Your task to perform on an android device: turn on translation in the chrome app Image 0: 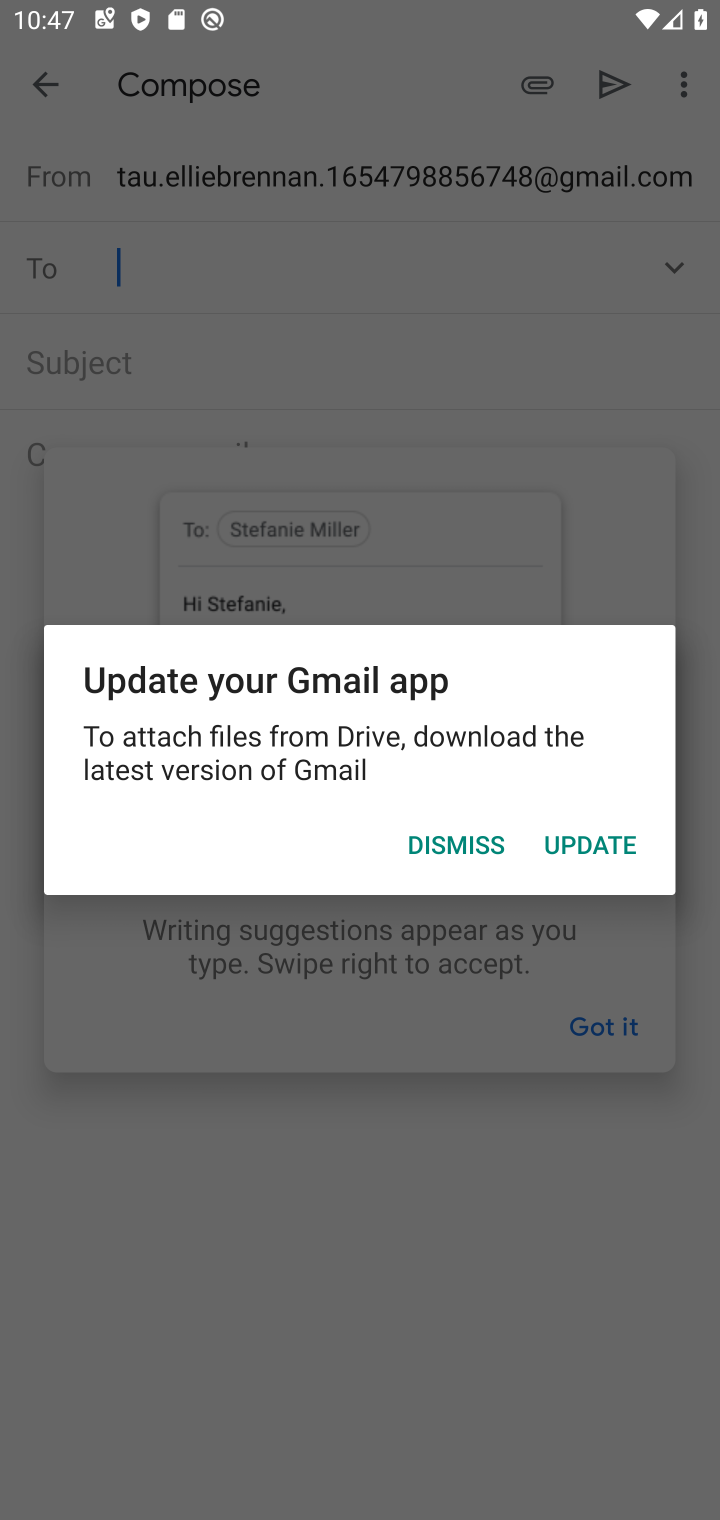
Step 0: click (490, 823)
Your task to perform on an android device: turn on translation in the chrome app Image 1: 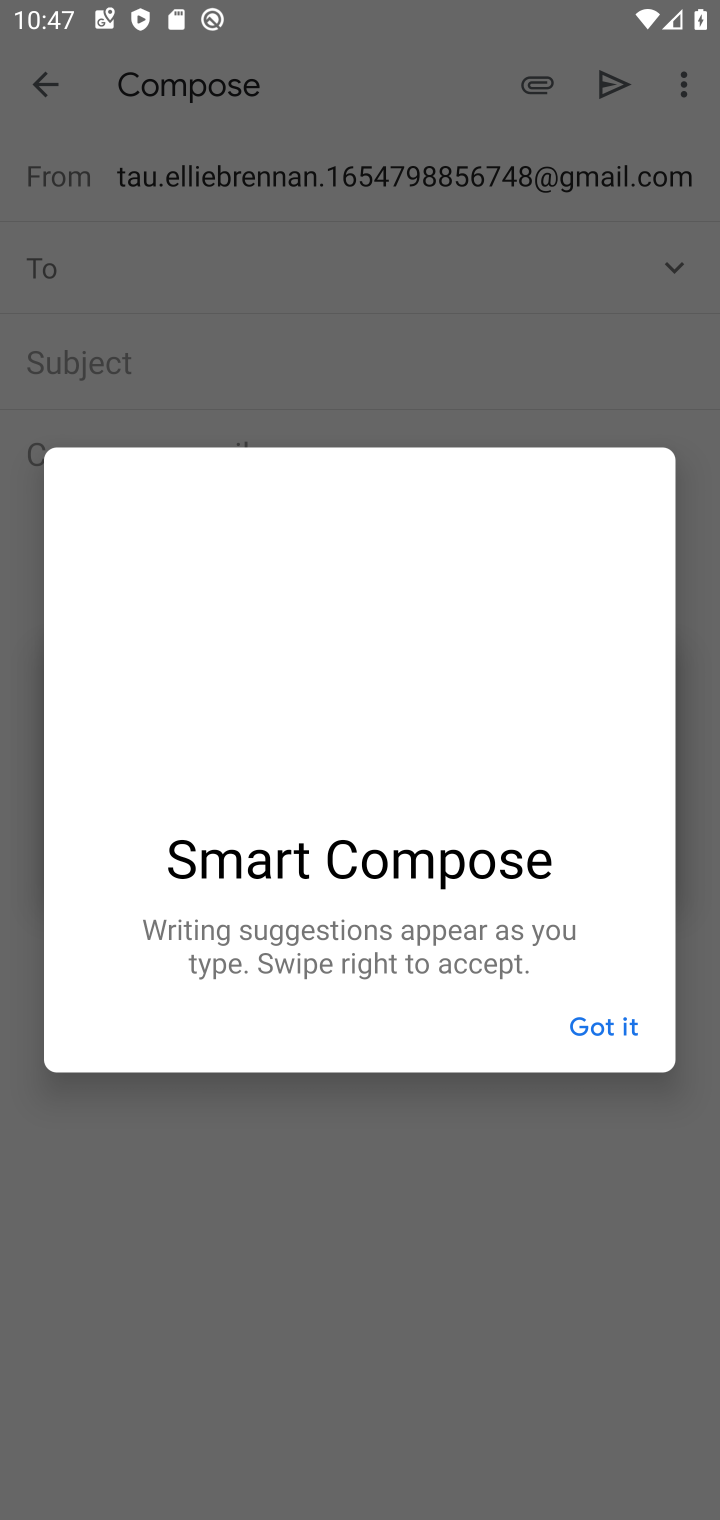
Step 1: click (617, 1036)
Your task to perform on an android device: turn on translation in the chrome app Image 2: 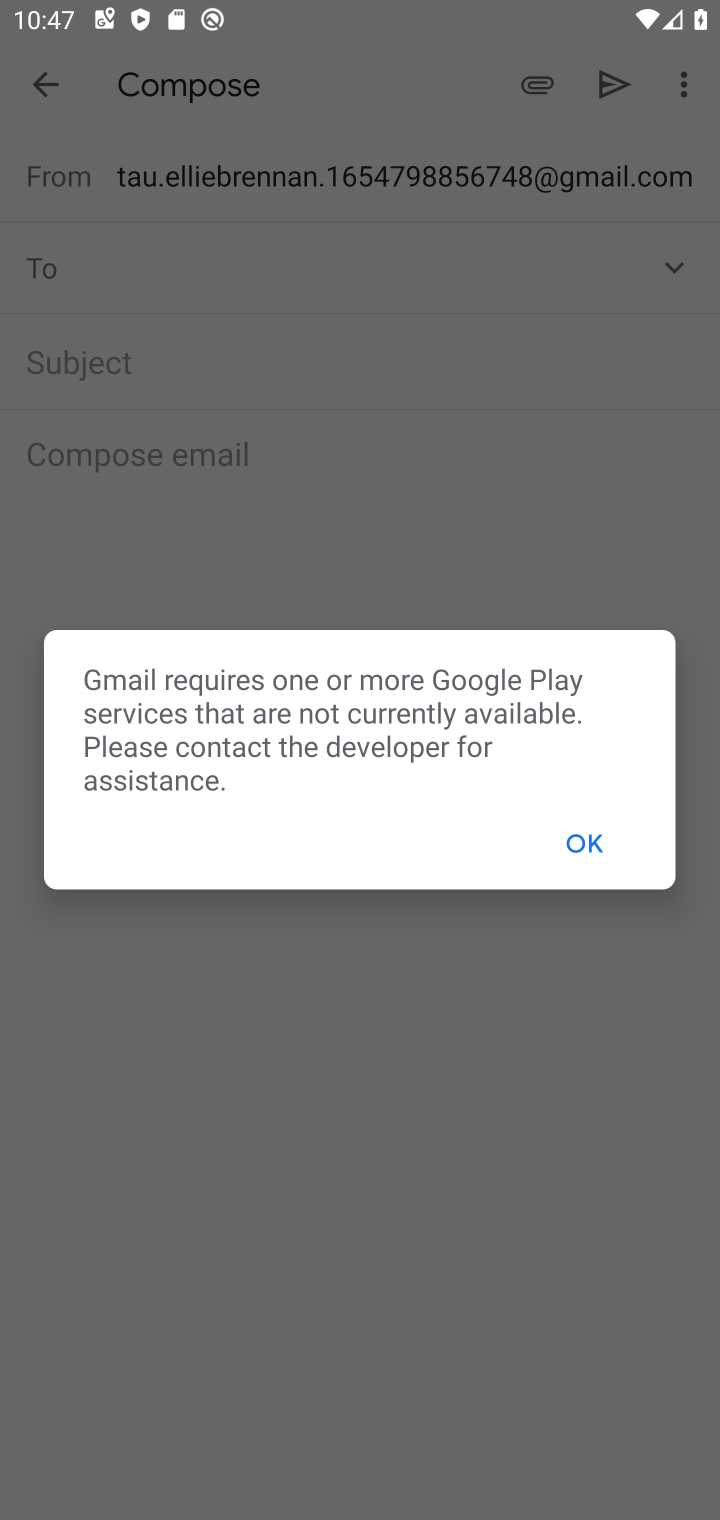
Step 2: click (576, 807)
Your task to perform on an android device: turn on translation in the chrome app Image 3: 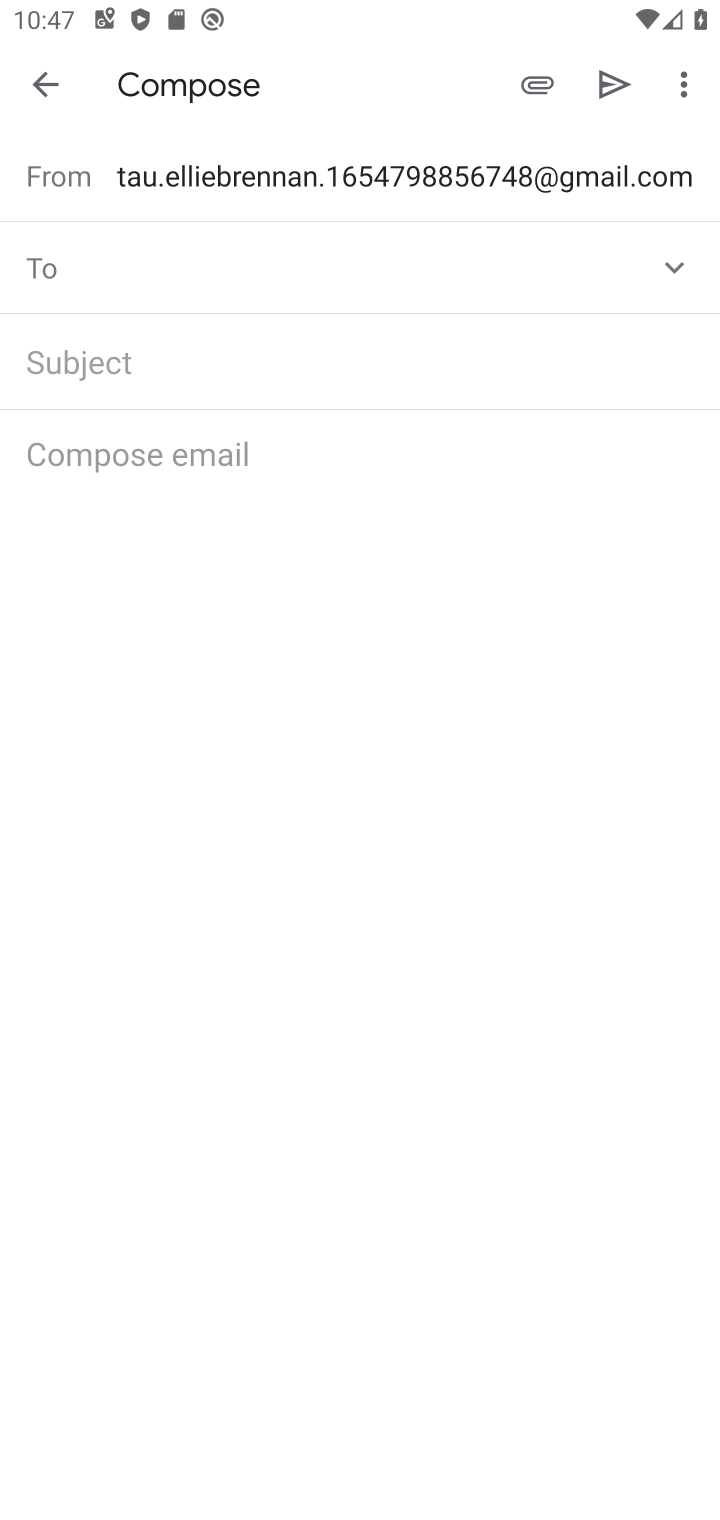
Step 3: press back button
Your task to perform on an android device: turn on translation in the chrome app Image 4: 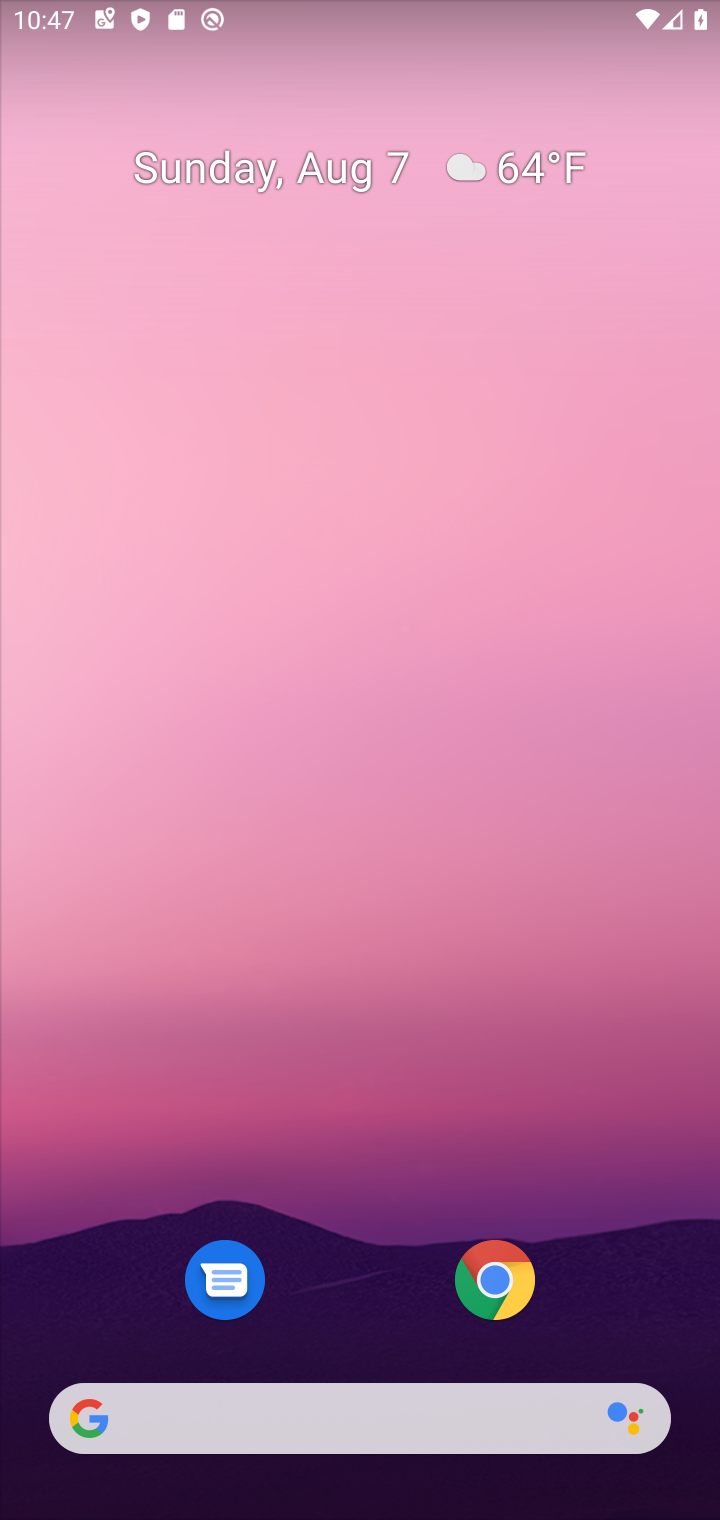
Step 4: click (497, 1266)
Your task to perform on an android device: turn on translation in the chrome app Image 5: 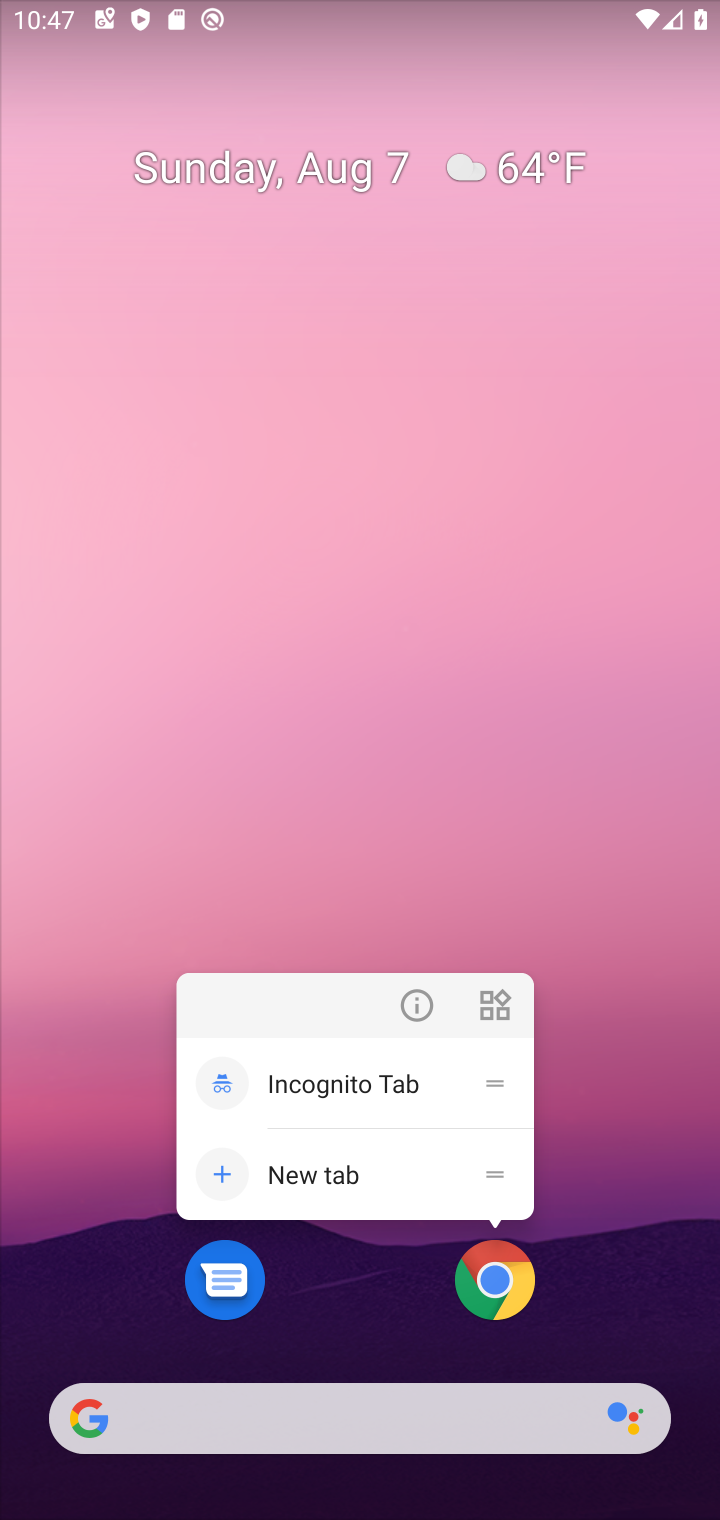
Step 5: click (505, 1262)
Your task to perform on an android device: turn on translation in the chrome app Image 6: 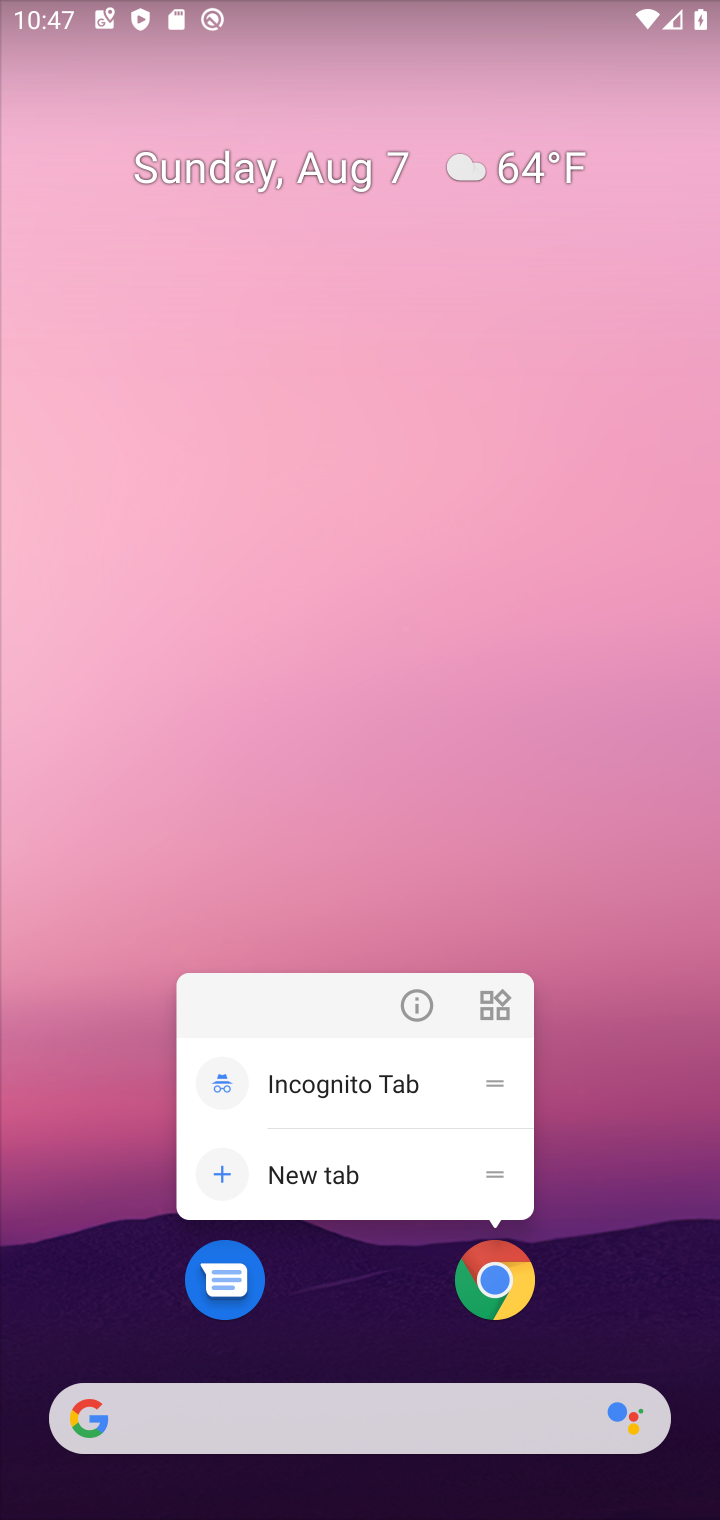
Step 6: click (507, 1284)
Your task to perform on an android device: turn on translation in the chrome app Image 7: 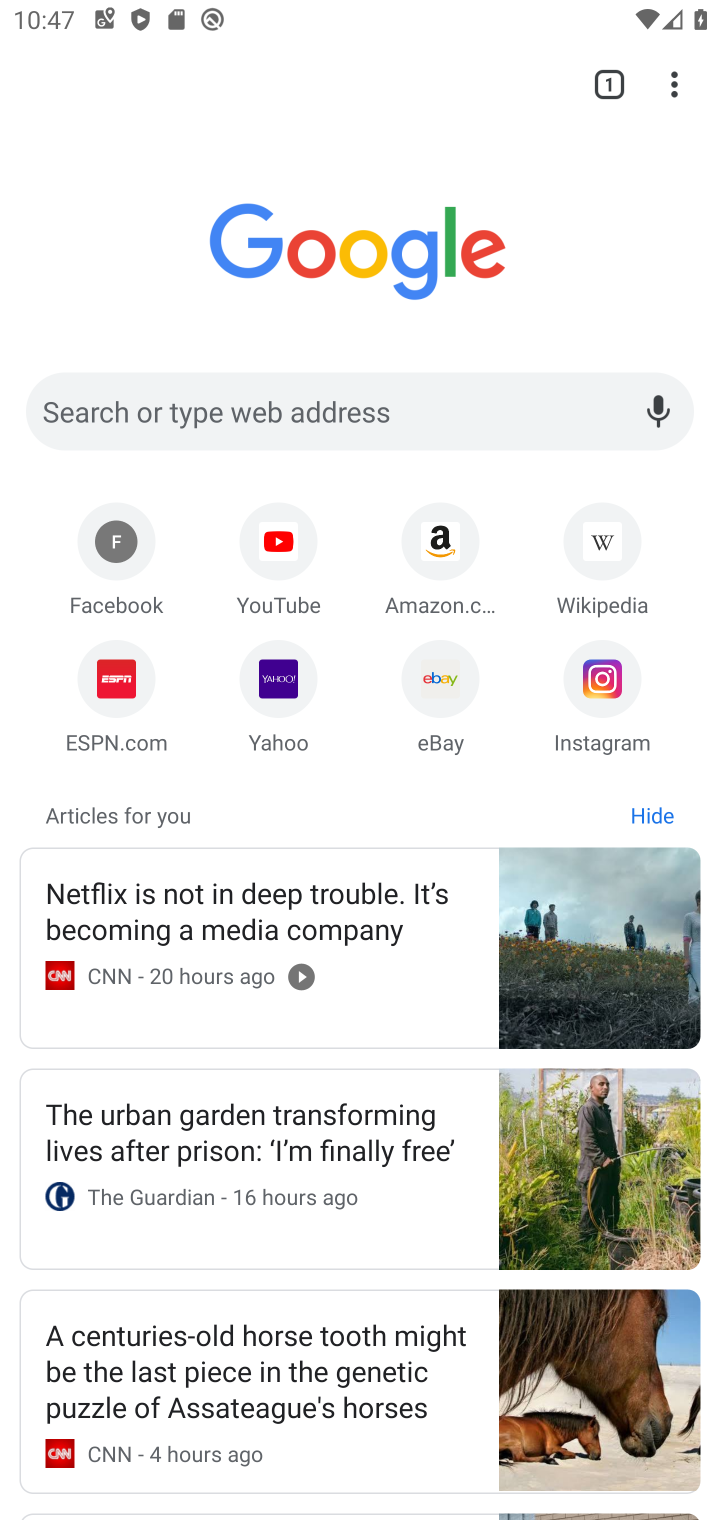
Step 7: drag from (685, 72) to (403, 721)
Your task to perform on an android device: turn on translation in the chrome app Image 8: 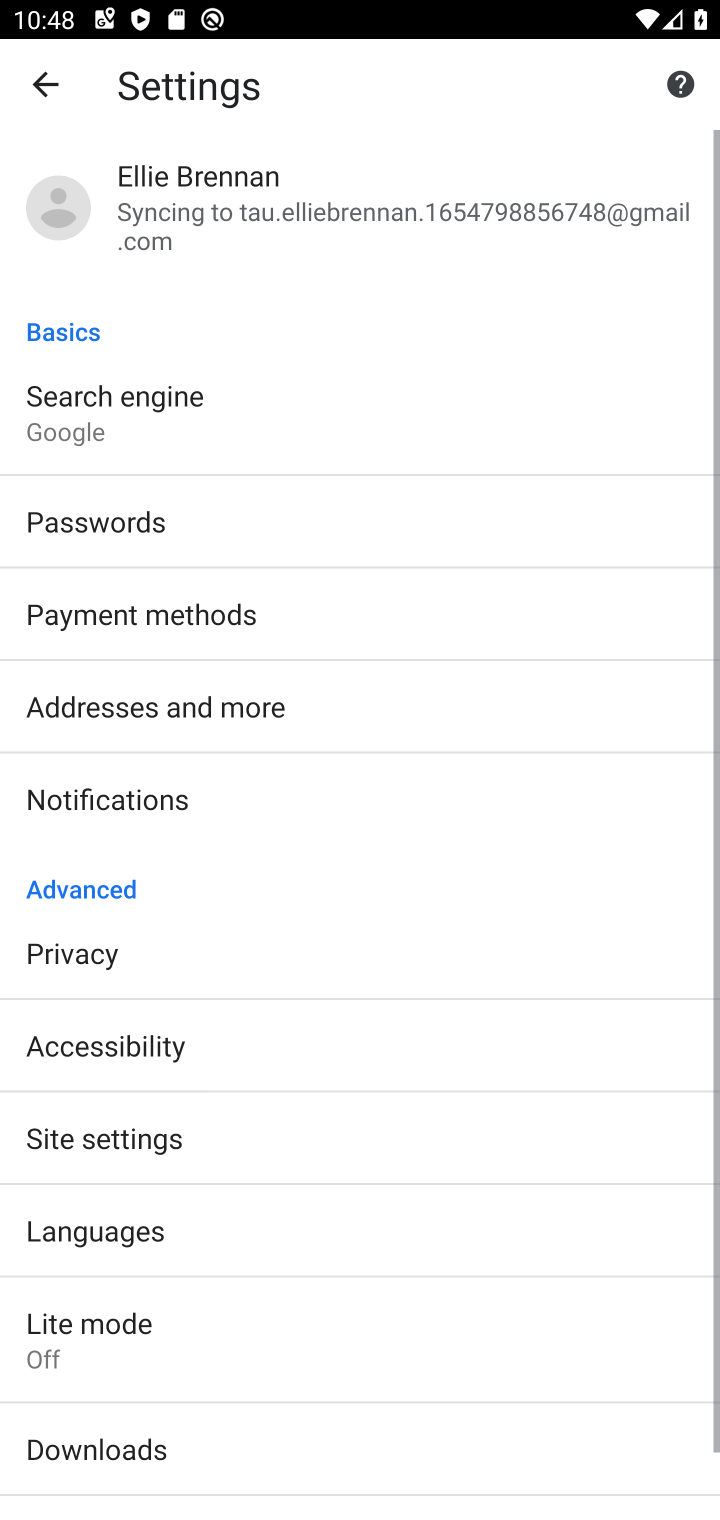
Step 8: drag from (346, 1310) to (460, 313)
Your task to perform on an android device: turn on translation in the chrome app Image 9: 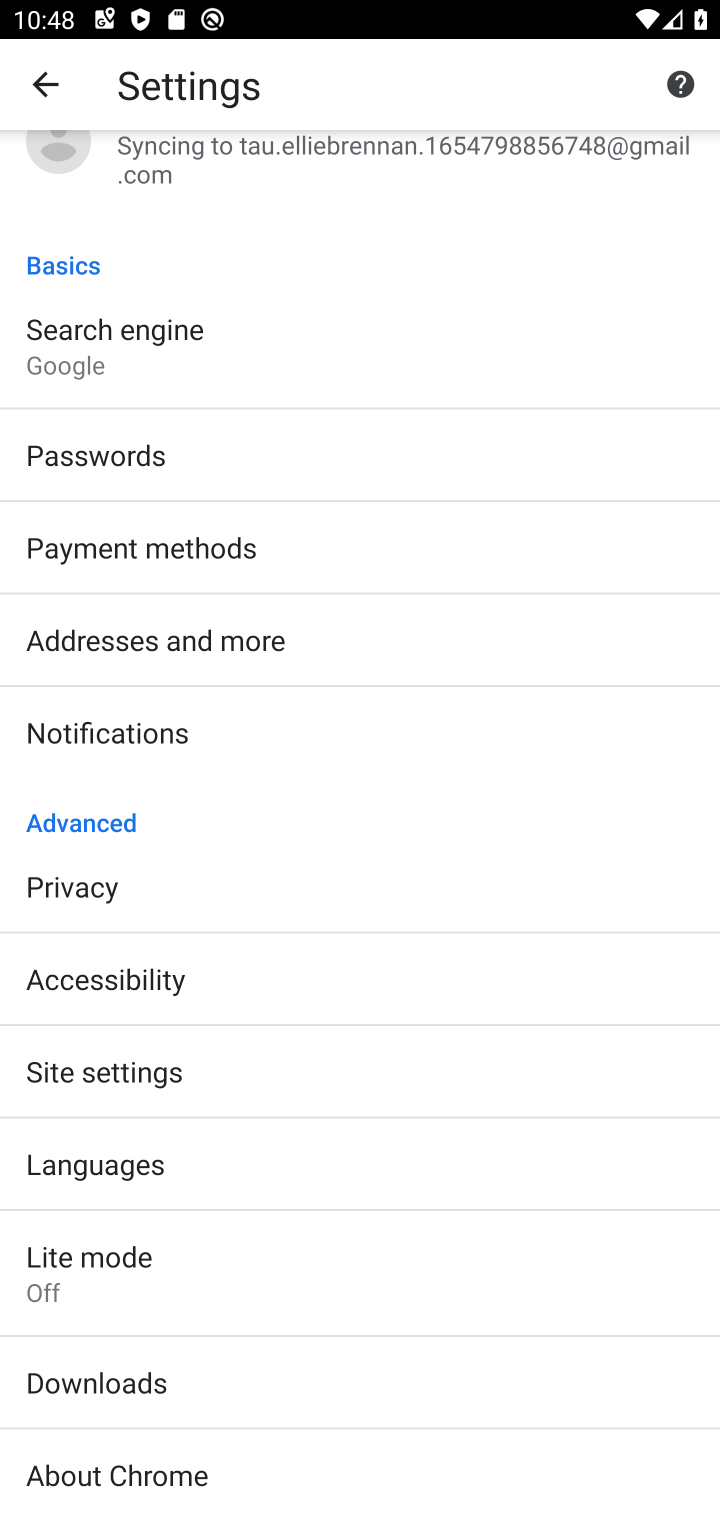
Step 9: click (133, 1147)
Your task to perform on an android device: turn on translation in the chrome app Image 10: 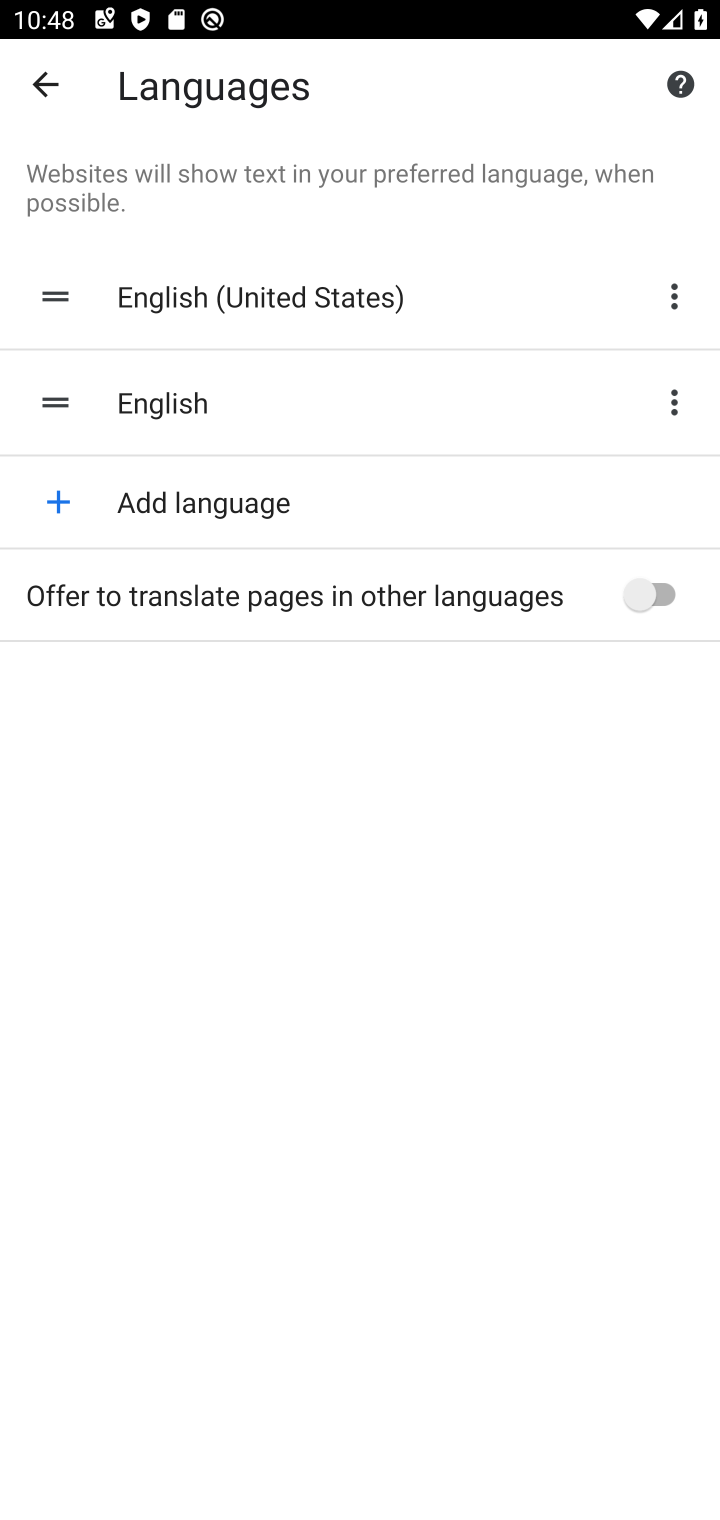
Step 10: click (657, 587)
Your task to perform on an android device: turn on translation in the chrome app Image 11: 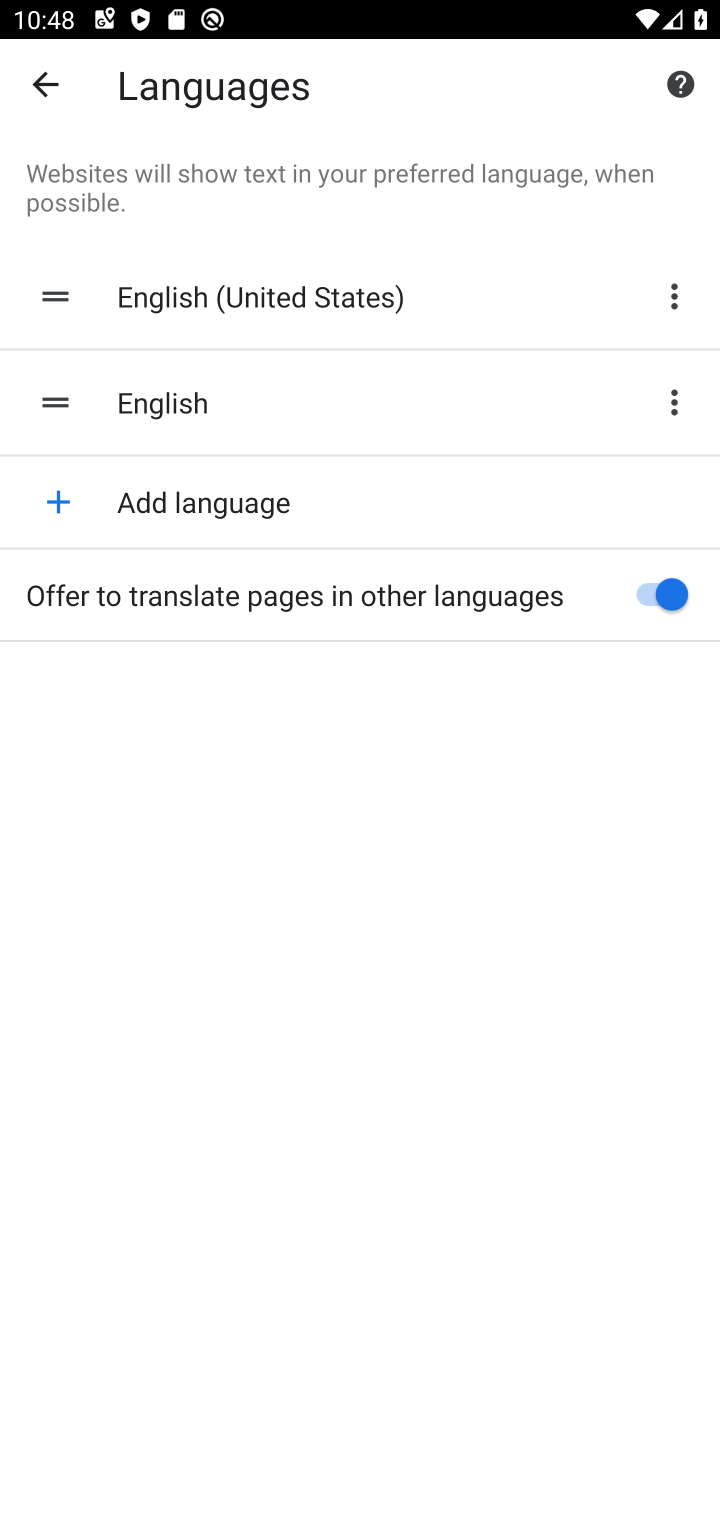
Step 11: task complete